Your task to perform on an android device: Check the weather Image 0: 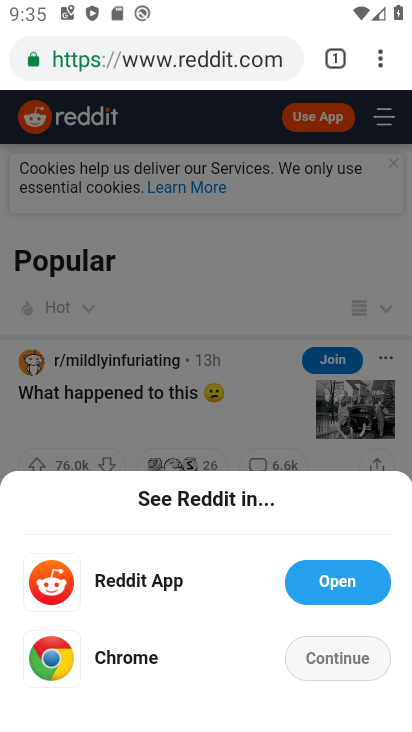
Step 0: click (197, 50)
Your task to perform on an android device: Check the weather Image 1: 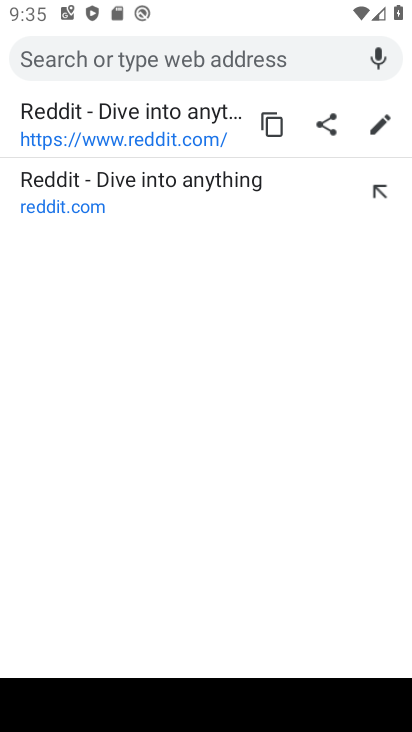
Step 1: type "Check the weather"
Your task to perform on an android device: Check the weather Image 2: 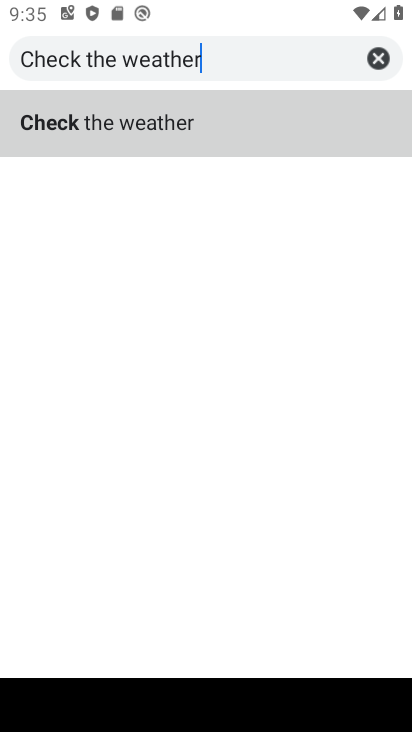
Step 2: type ""
Your task to perform on an android device: Check the weather Image 3: 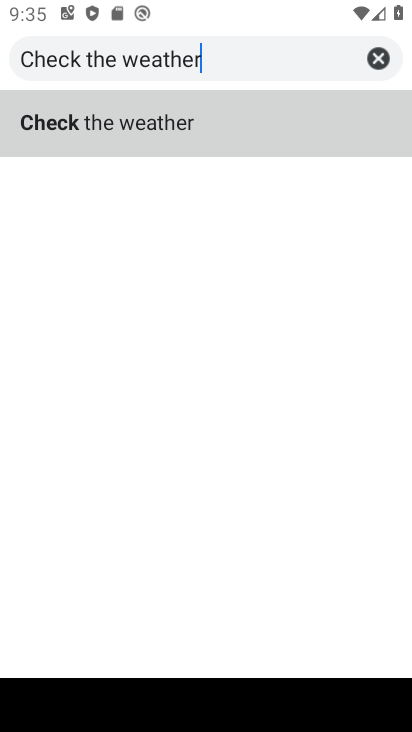
Step 3: click (188, 124)
Your task to perform on an android device: Check the weather Image 4: 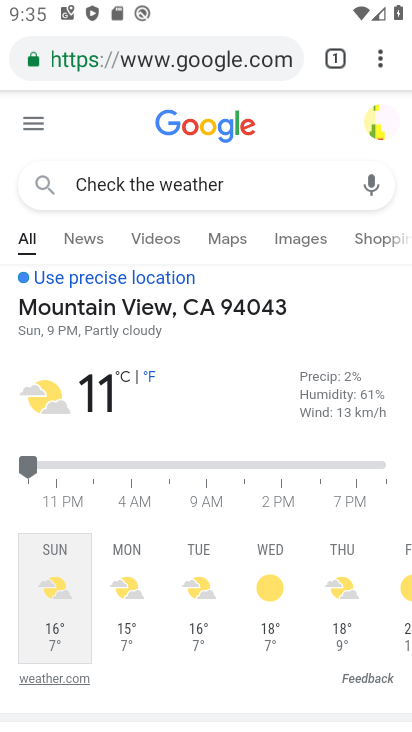
Step 4: task complete